Your task to perform on an android device: change timer sound Image 0: 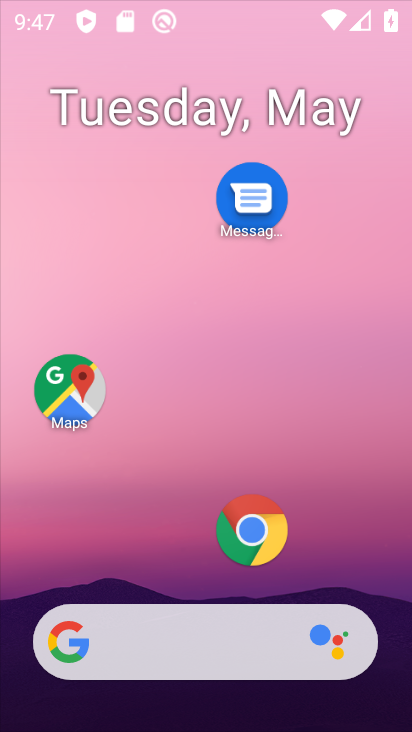
Step 0: click (162, 320)
Your task to perform on an android device: change timer sound Image 1: 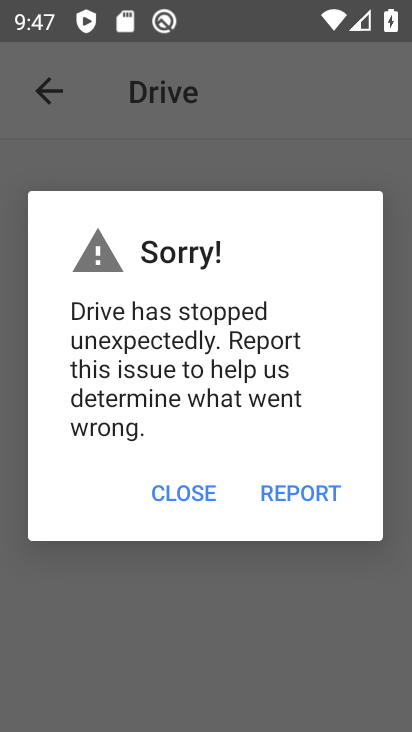
Step 1: press home button
Your task to perform on an android device: change timer sound Image 2: 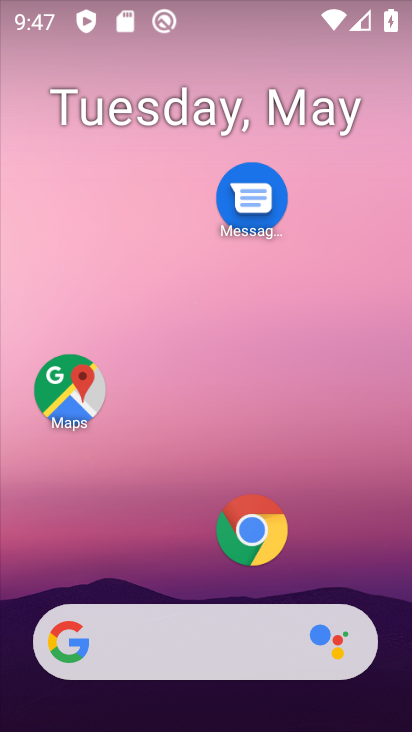
Step 2: drag from (218, 582) to (222, 6)
Your task to perform on an android device: change timer sound Image 3: 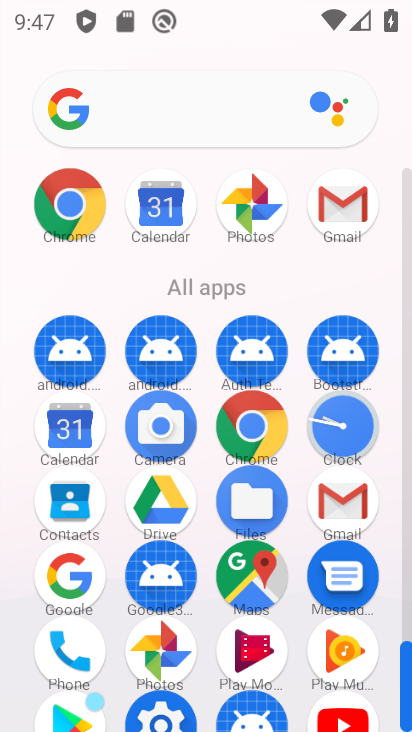
Step 3: click (340, 418)
Your task to perform on an android device: change timer sound Image 4: 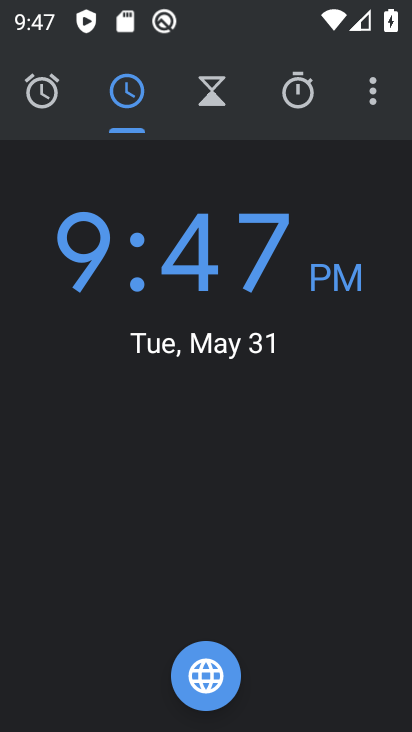
Step 4: click (375, 101)
Your task to perform on an android device: change timer sound Image 5: 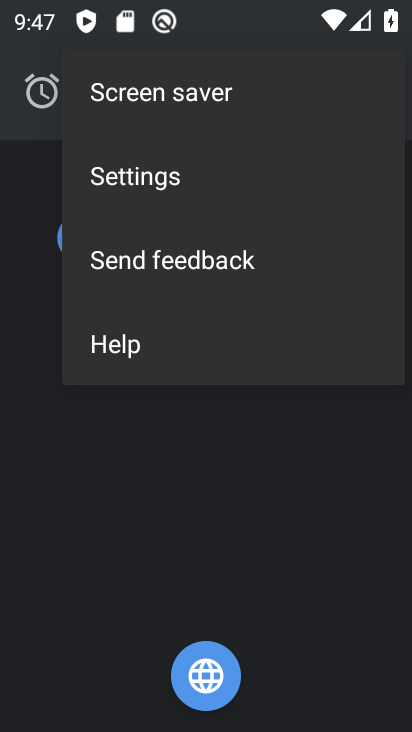
Step 5: click (208, 186)
Your task to perform on an android device: change timer sound Image 6: 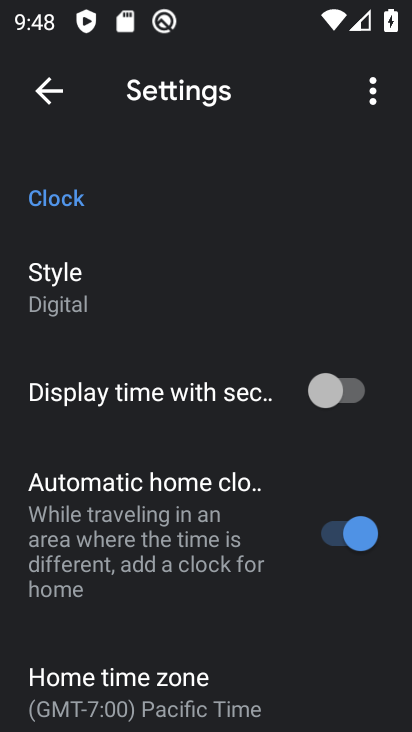
Step 6: drag from (150, 608) to (206, 126)
Your task to perform on an android device: change timer sound Image 7: 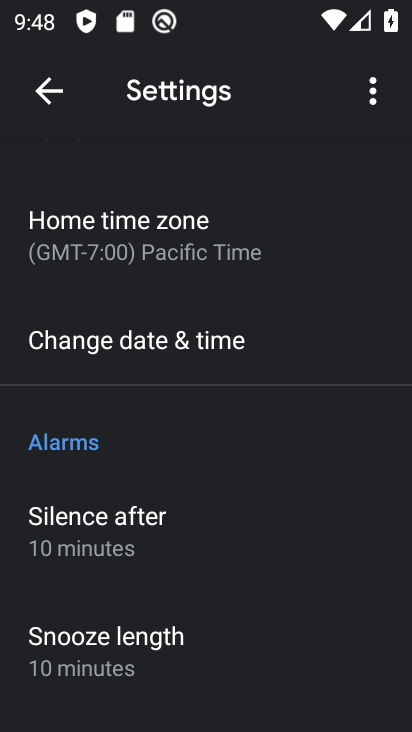
Step 7: drag from (198, 516) to (201, 277)
Your task to perform on an android device: change timer sound Image 8: 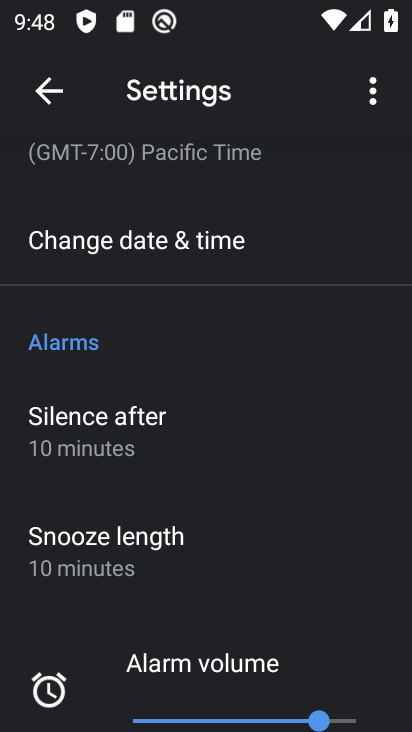
Step 8: drag from (155, 626) to (152, 308)
Your task to perform on an android device: change timer sound Image 9: 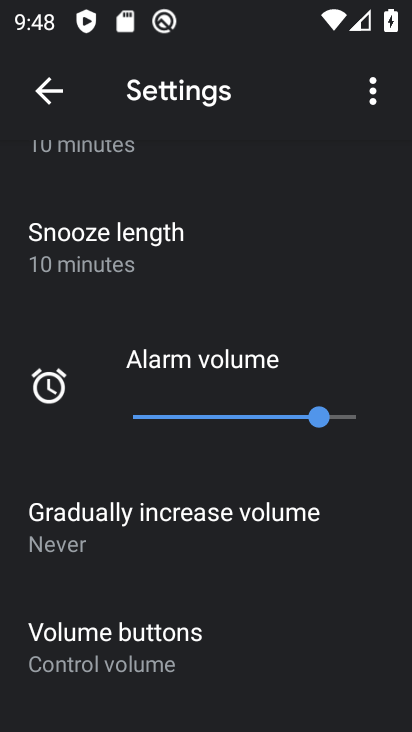
Step 9: drag from (146, 592) to (162, 242)
Your task to perform on an android device: change timer sound Image 10: 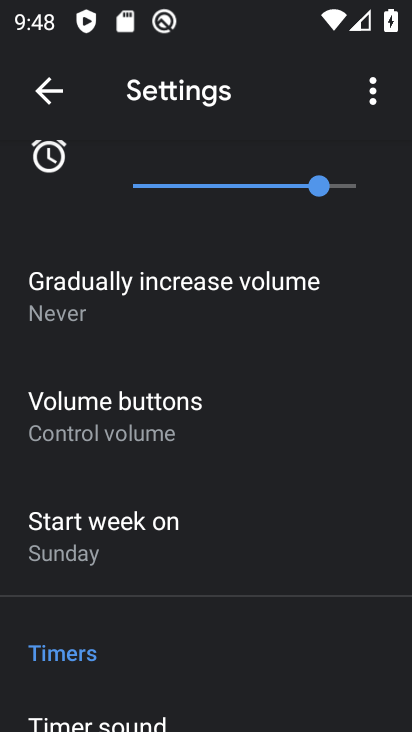
Step 10: drag from (127, 598) to (156, 230)
Your task to perform on an android device: change timer sound Image 11: 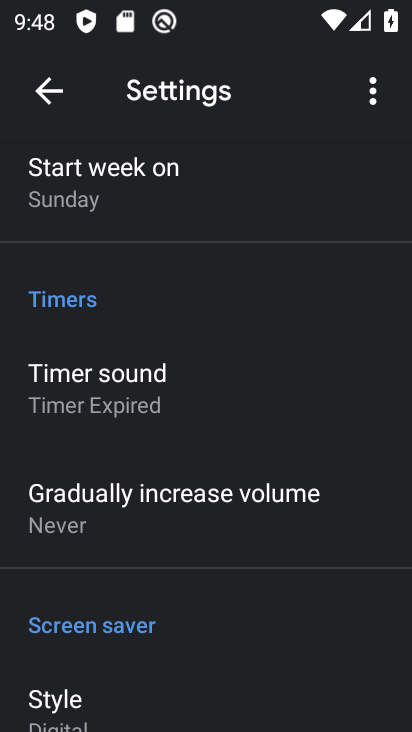
Step 11: click (121, 413)
Your task to perform on an android device: change timer sound Image 12: 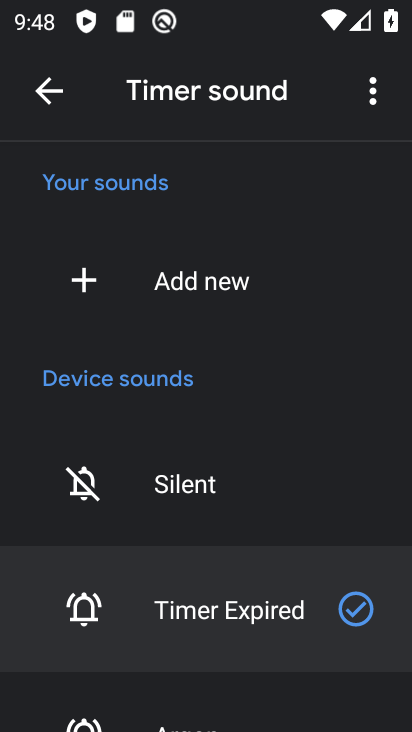
Step 12: drag from (160, 674) to (202, 302)
Your task to perform on an android device: change timer sound Image 13: 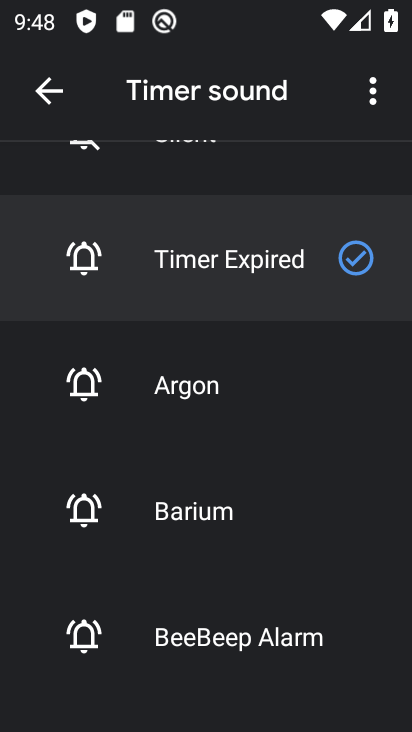
Step 13: click (163, 525)
Your task to perform on an android device: change timer sound Image 14: 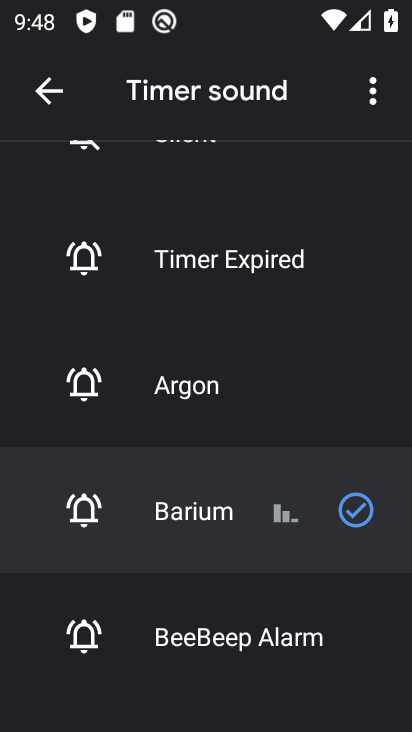
Step 14: task complete